Your task to perform on an android device: choose inbox layout in the gmail app Image 0: 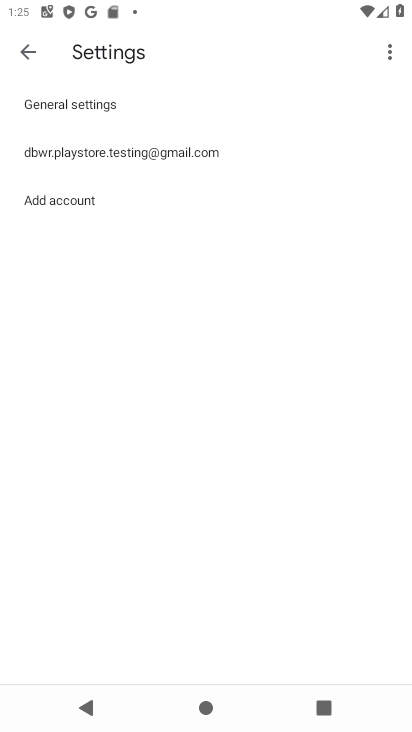
Step 0: press home button
Your task to perform on an android device: choose inbox layout in the gmail app Image 1: 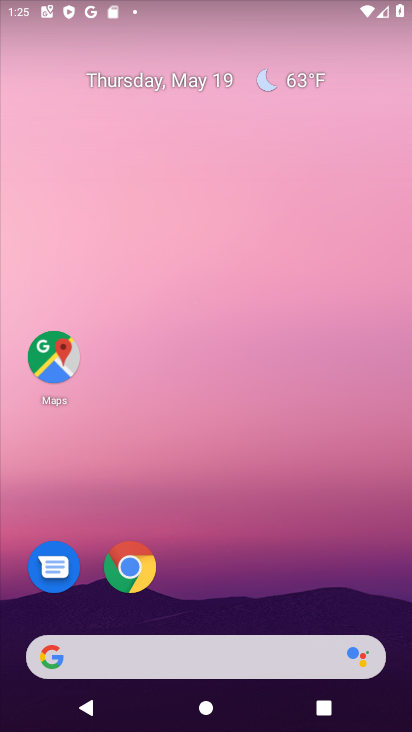
Step 1: drag from (313, 549) to (351, 9)
Your task to perform on an android device: choose inbox layout in the gmail app Image 2: 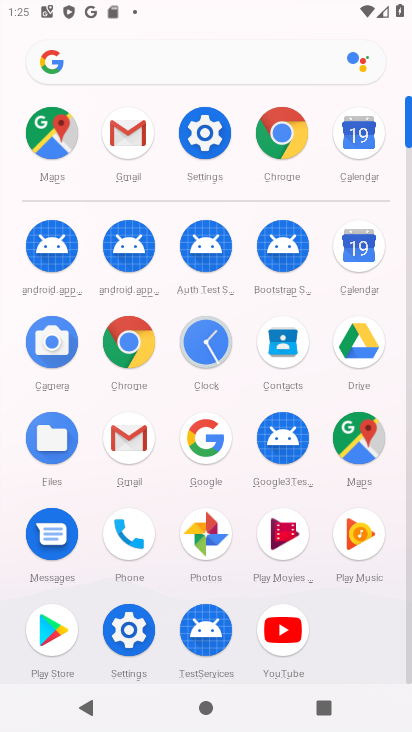
Step 2: click (136, 137)
Your task to perform on an android device: choose inbox layout in the gmail app Image 3: 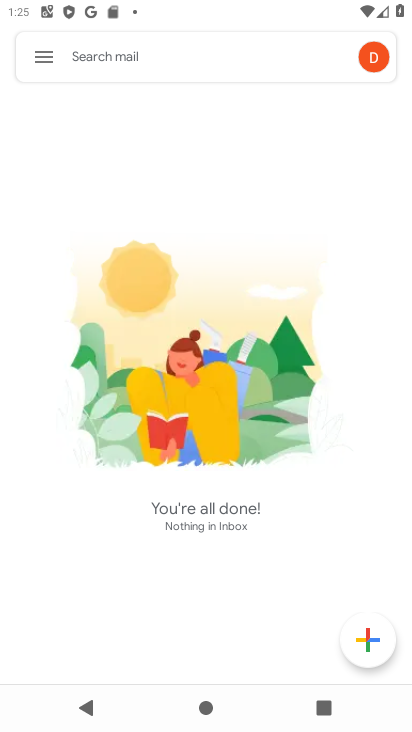
Step 3: click (31, 54)
Your task to perform on an android device: choose inbox layout in the gmail app Image 4: 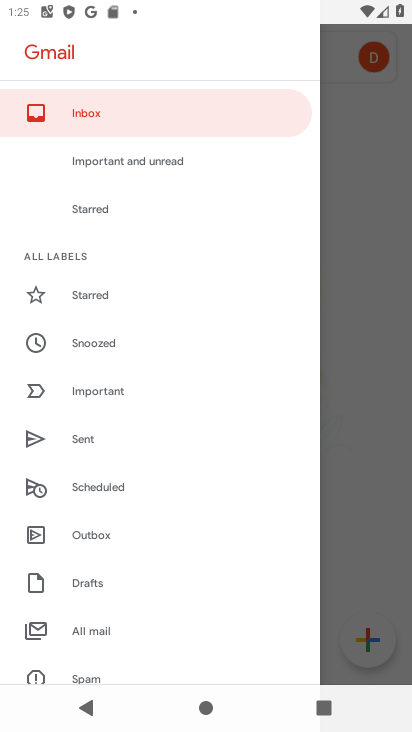
Step 4: drag from (119, 608) to (137, 140)
Your task to perform on an android device: choose inbox layout in the gmail app Image 5: 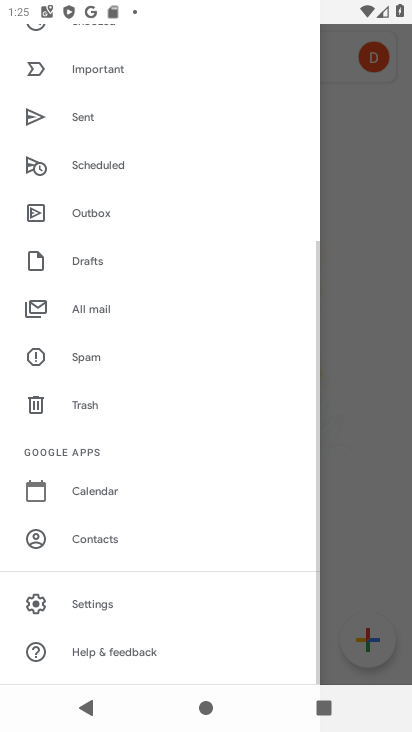
Step 5: click (93, 610)
Your task to perform on an android device: choose inbox layout in the gmail app Image 6: 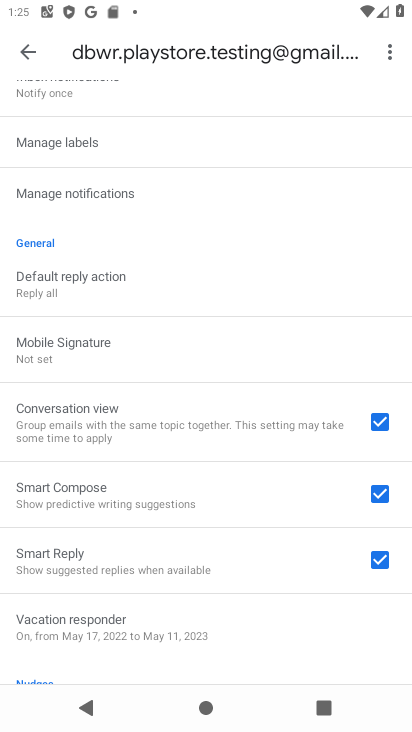
Step 6: drag from (67, 242) to (110, 611)
Your task to perform on an android device: choose inbox layout in the gmail app Image 7: 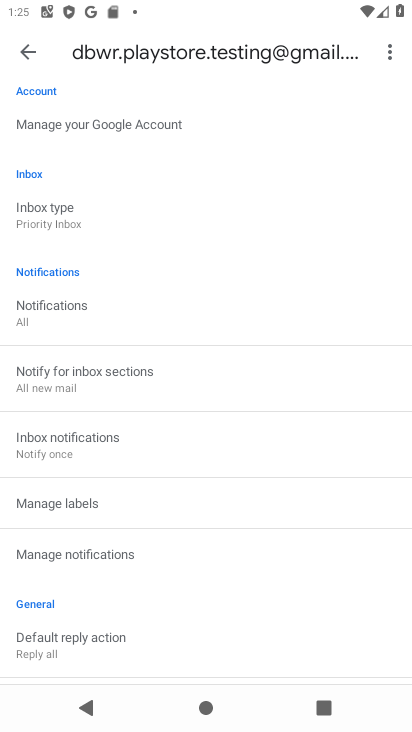
Step 7: drag from (148, 318) to (206, 613)
Your task to perform on an android device: choose inbox layout in the gmail app Image 8: 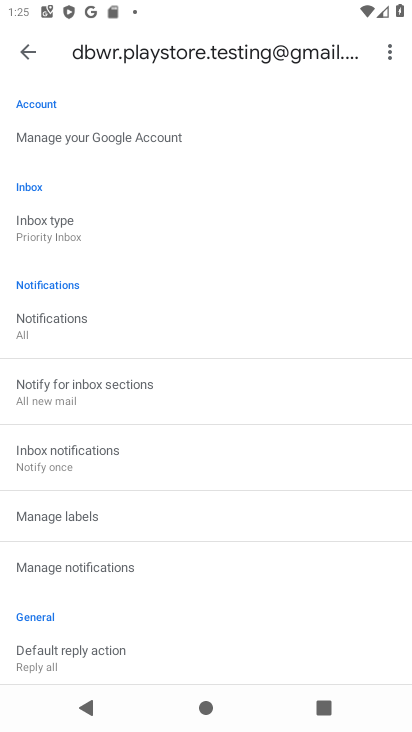
Step 8: click (33, 235)
Your task to perform on an android device: choose inbox layout in the gmail app Image 9: 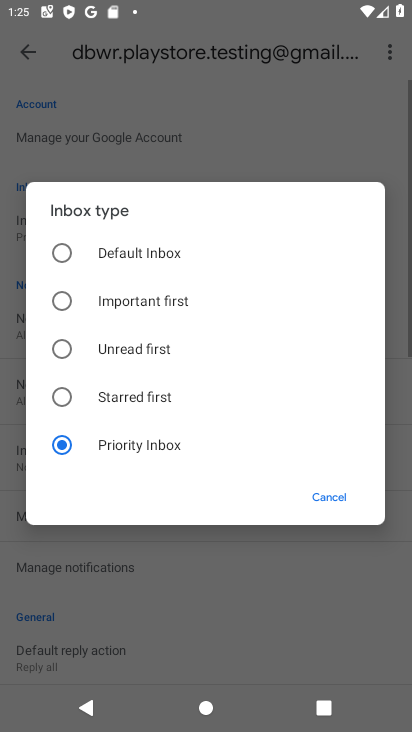
Step 9: click (61, 308)
Your task to perform on an android device: choose inbox layout in the gmail app Image 10: 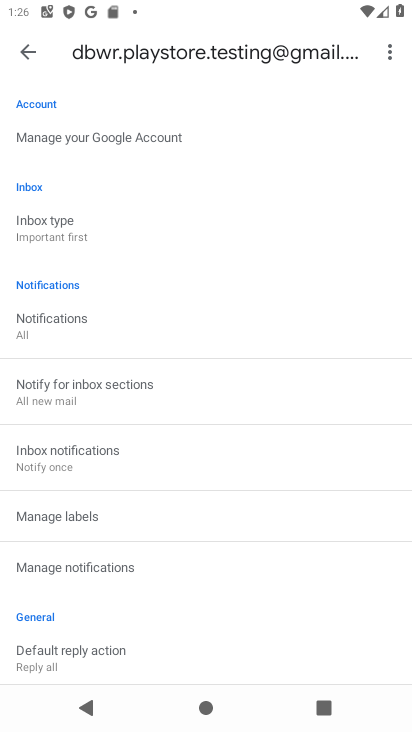
Step 10: task complete